Your task to perform on an android device: Go to wifi settings Image 0: 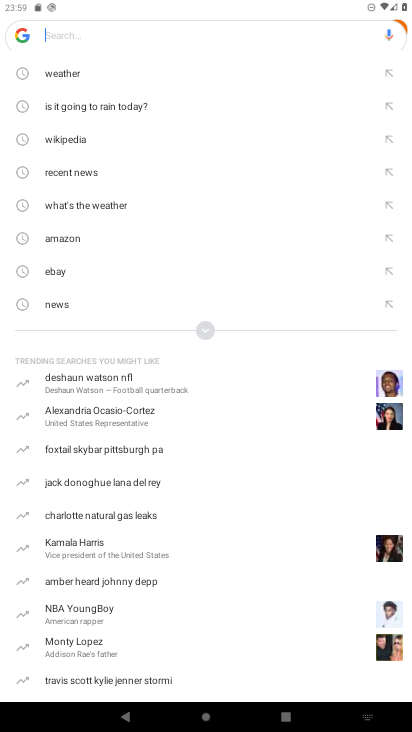
Step 0: drag from (203, 9) to (194, 589)
Your task to perform on an android device: Go to wifi settings Image 1: 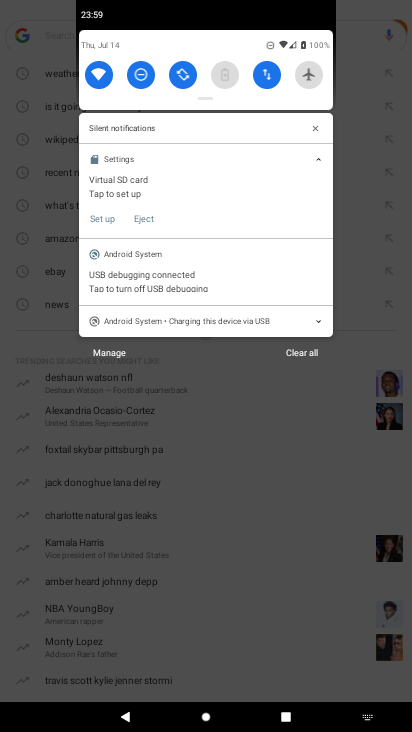
Step 1: click (97, 83)
Your task to perform on an android device: Go to wifi settings Image 2: 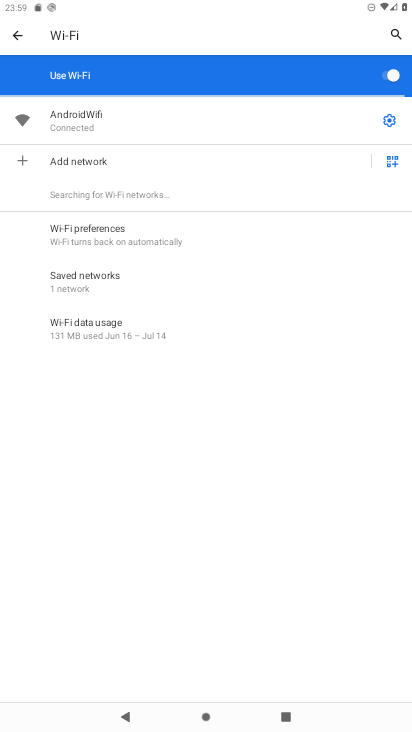
Step 2: task complete